Your task to perform on an android device: Search for "logitech g pro" on target.com, select the first entry, and add it to the cart. Image 0: 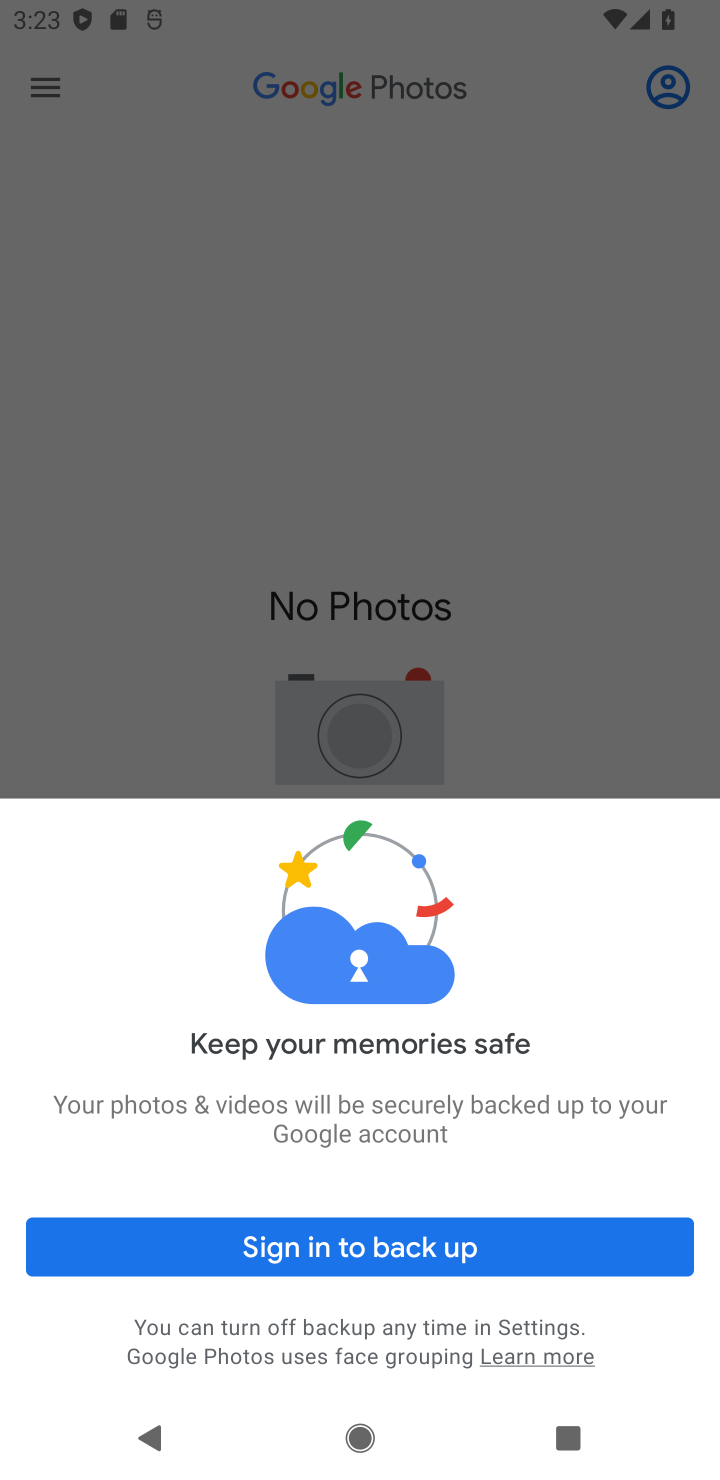
Step 0: press home button
Your task to perform on an android device: Search for "logitech g pro" on target.com, select the first entry, and add it to the cart. Image 1: 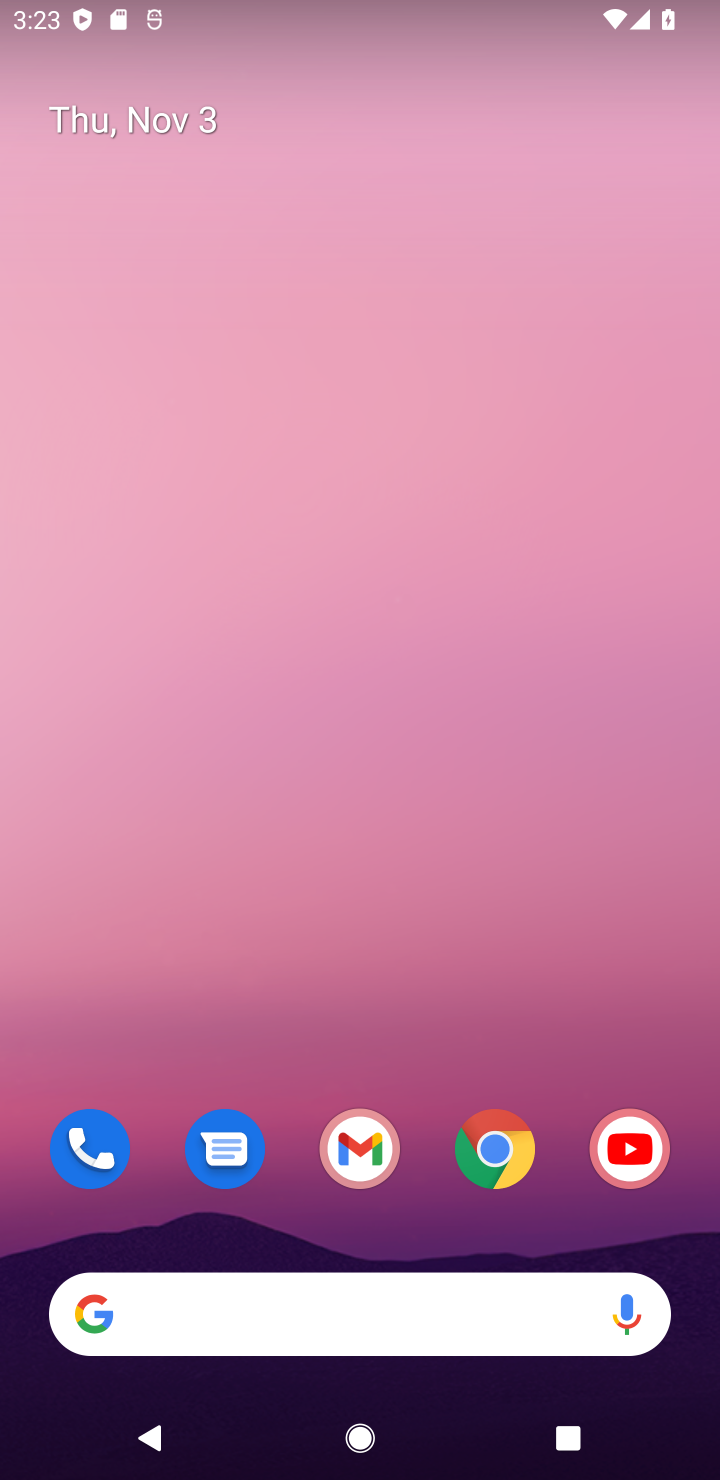
Step 1: click (493, 1156)
Your task to perform on an android device: Search for "logitech g pro" on target.com, select the first entry, and add it to the cart. Image 2: 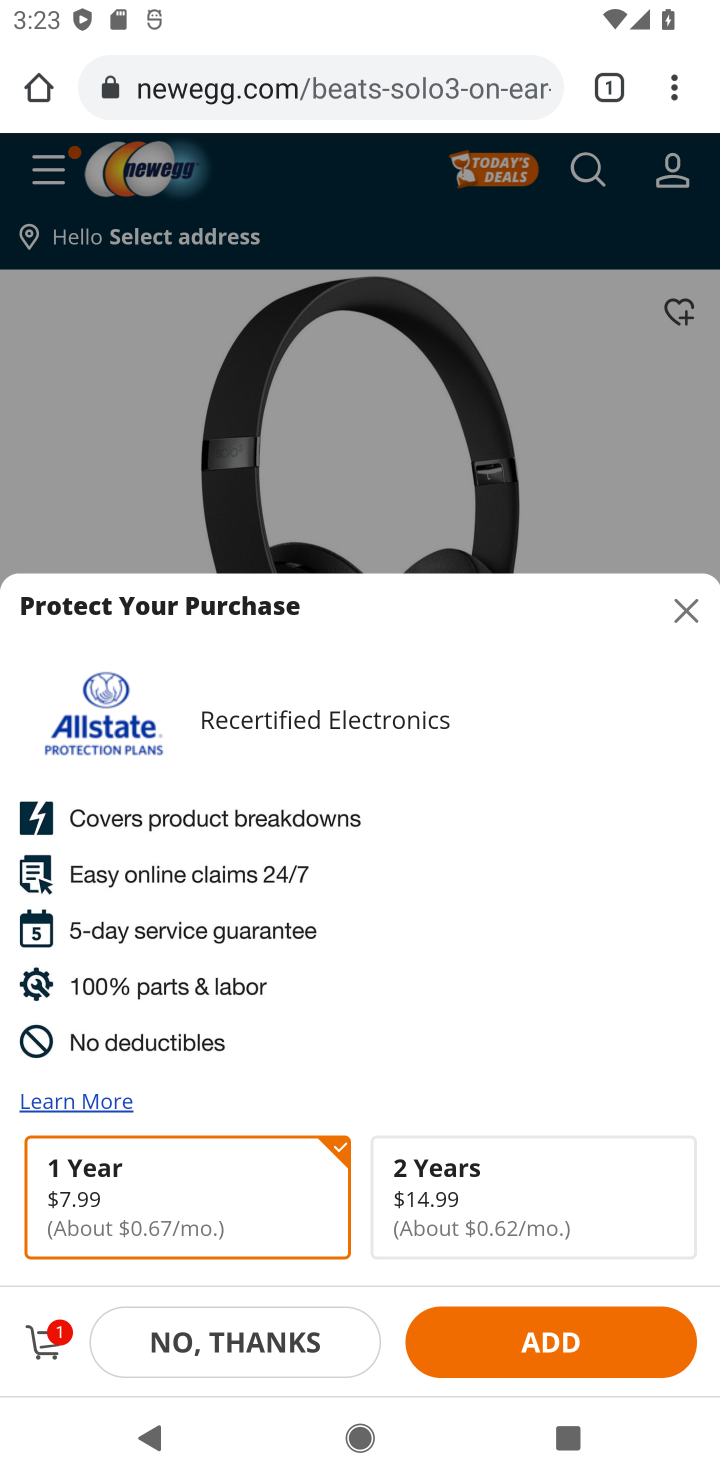
Step 2: click (687, 603)
Your task to perform on an android device: Search for "logitech g pro" on target.com, select the first entry, and add it to the cart. Image 3: 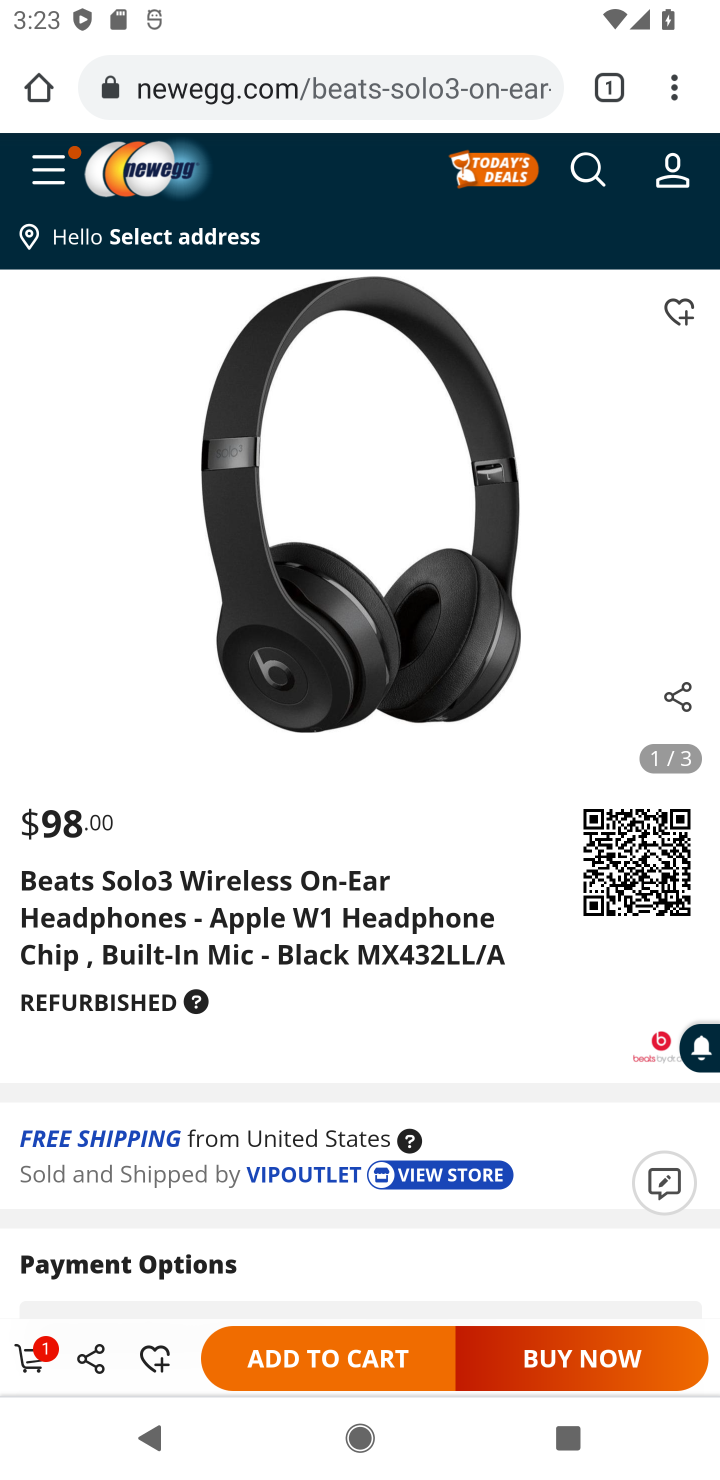
Step 3: click (613, 89)
Your task to perform on an android device: Search for "logitech g pro" on target.com, select the first entry, and add it to the cart. Image 4: 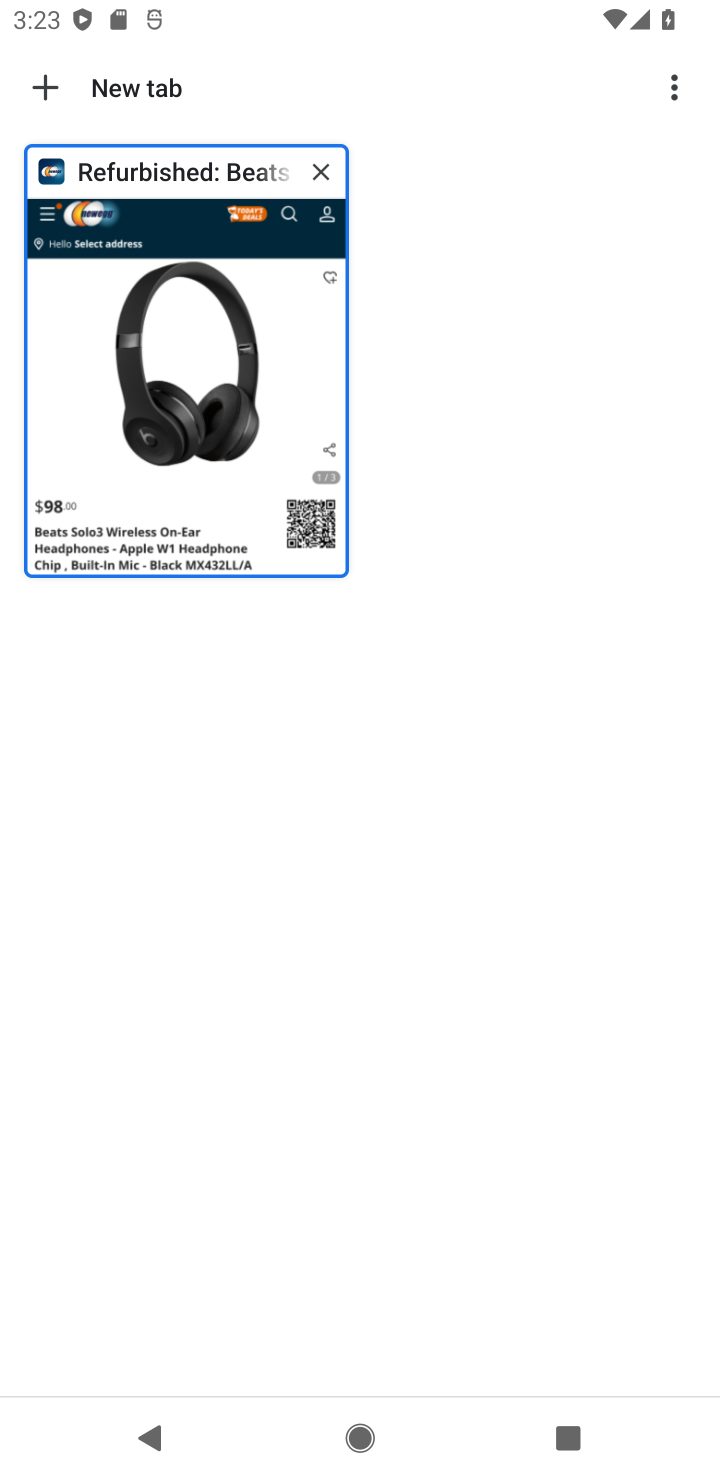
Step 4: click (44, 98)
Your task to perform on an android device: Search for "logitech g pro" on target.com, select the first entry, and add it to the cart. Image 5: 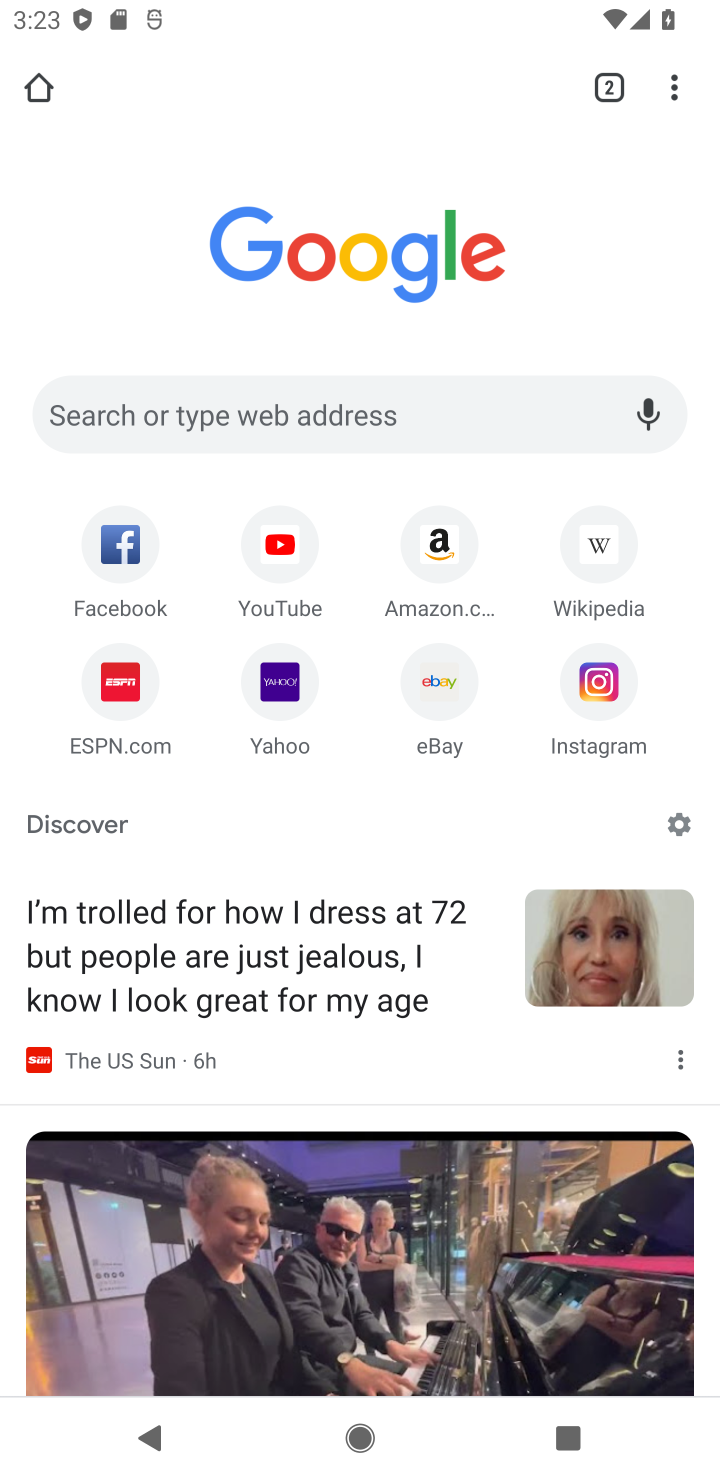
Step 5: click (184, 409)
Your task to perform on an android device: Search for "logitech g pro" on target.com, select the first entry, and add it to the cart. Image 6: 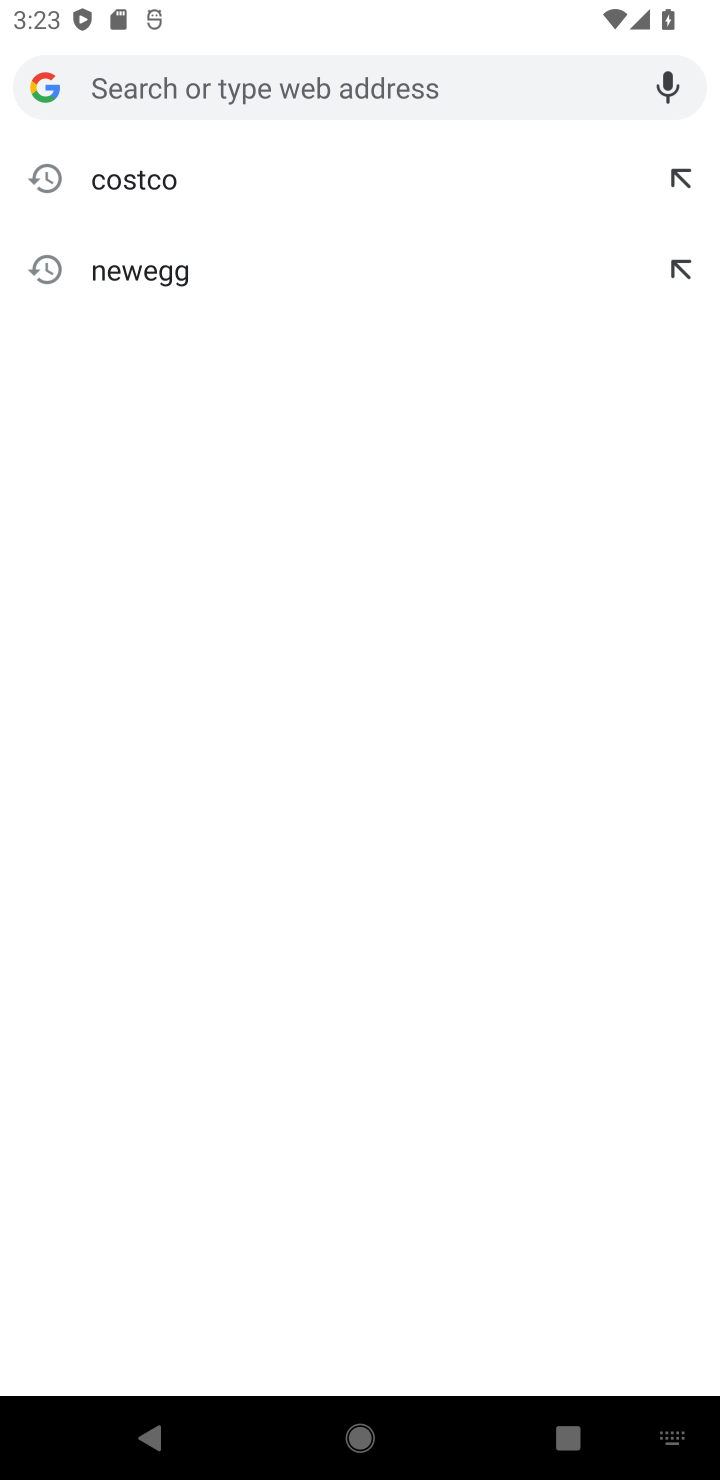
Step 6: type "target"
Your task to perform on an android device: Search for "logitech g pro" on target.com, select the first entry, and add it to the cart. Image 7: 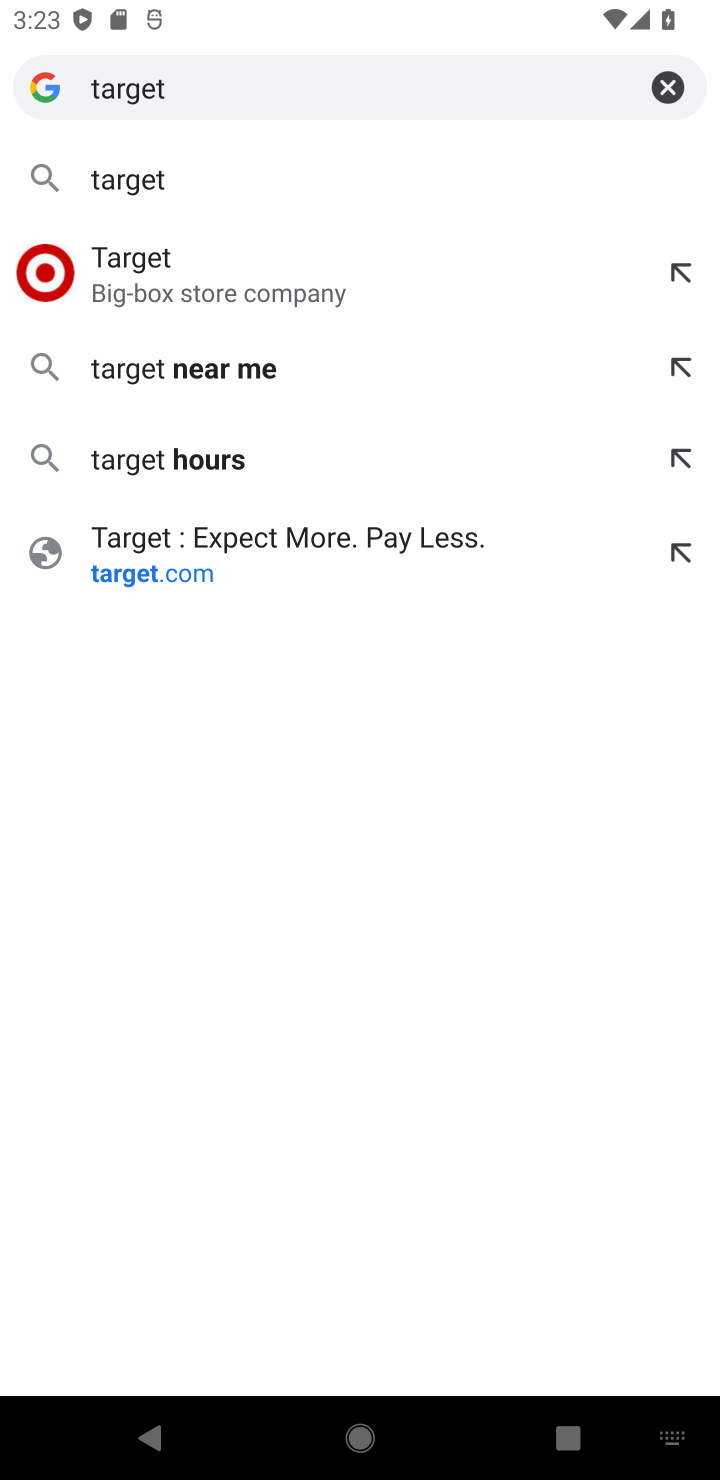
Step 7: click (194, 267)
Your task to perform on an android device: Search for "logitech g pro" on target.com, select the first entry, and add it to the cart. Image 8: 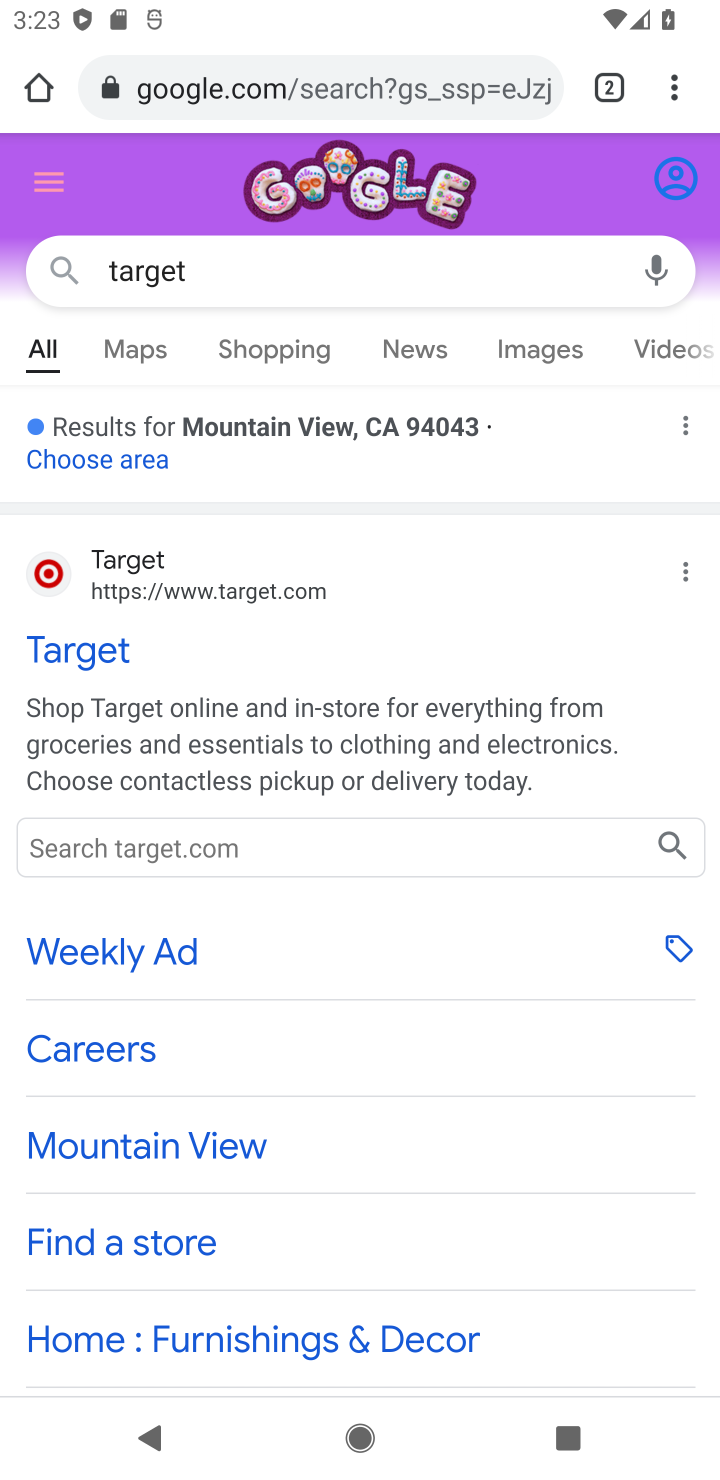
Step 8: click (55, 847)
Your task to perform on an android device: Search for "logitech g pro" on target.com, select the first entry, and add it to the cart. Image 9: 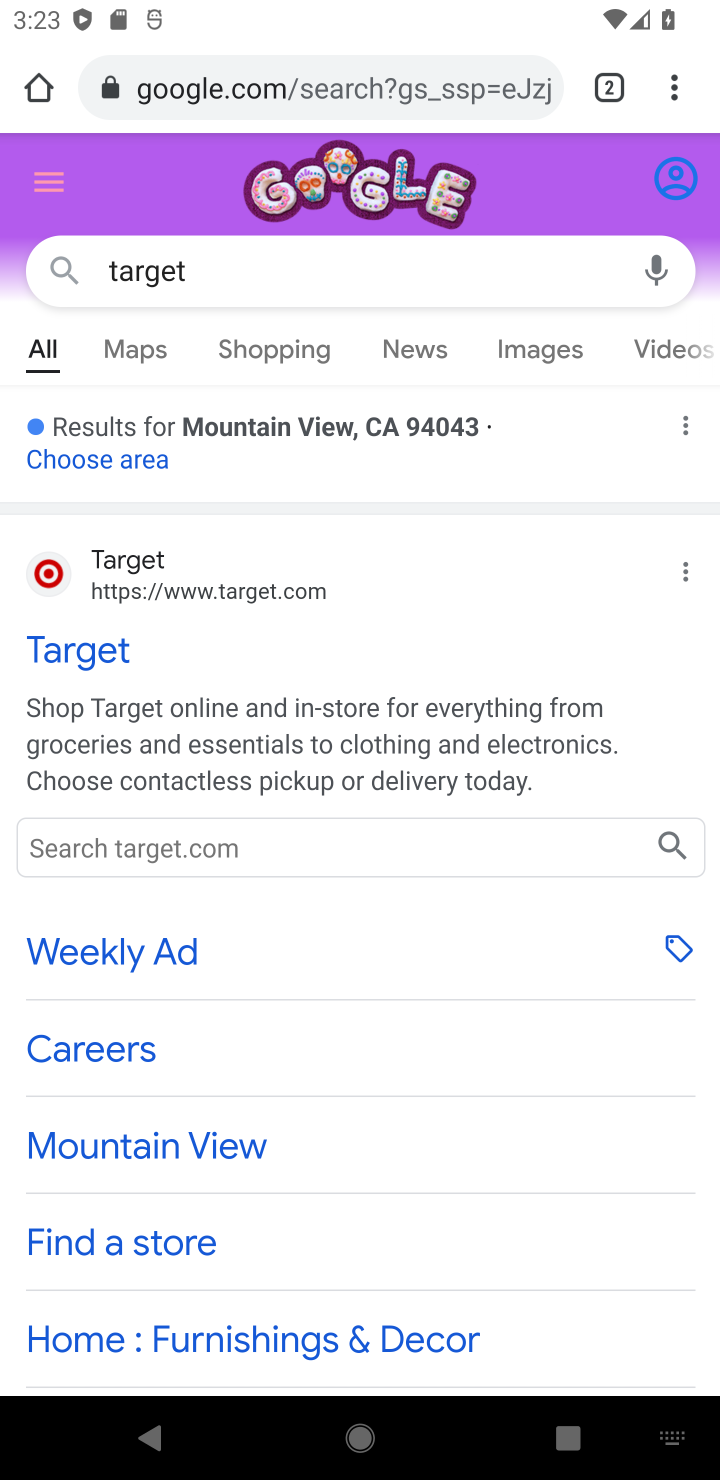
Step 9: type "logitech g pro"
Your task to perform on an android device: Search for "logitech g pro" on target.com, select the first entry, and add it to the cart. Image 10: 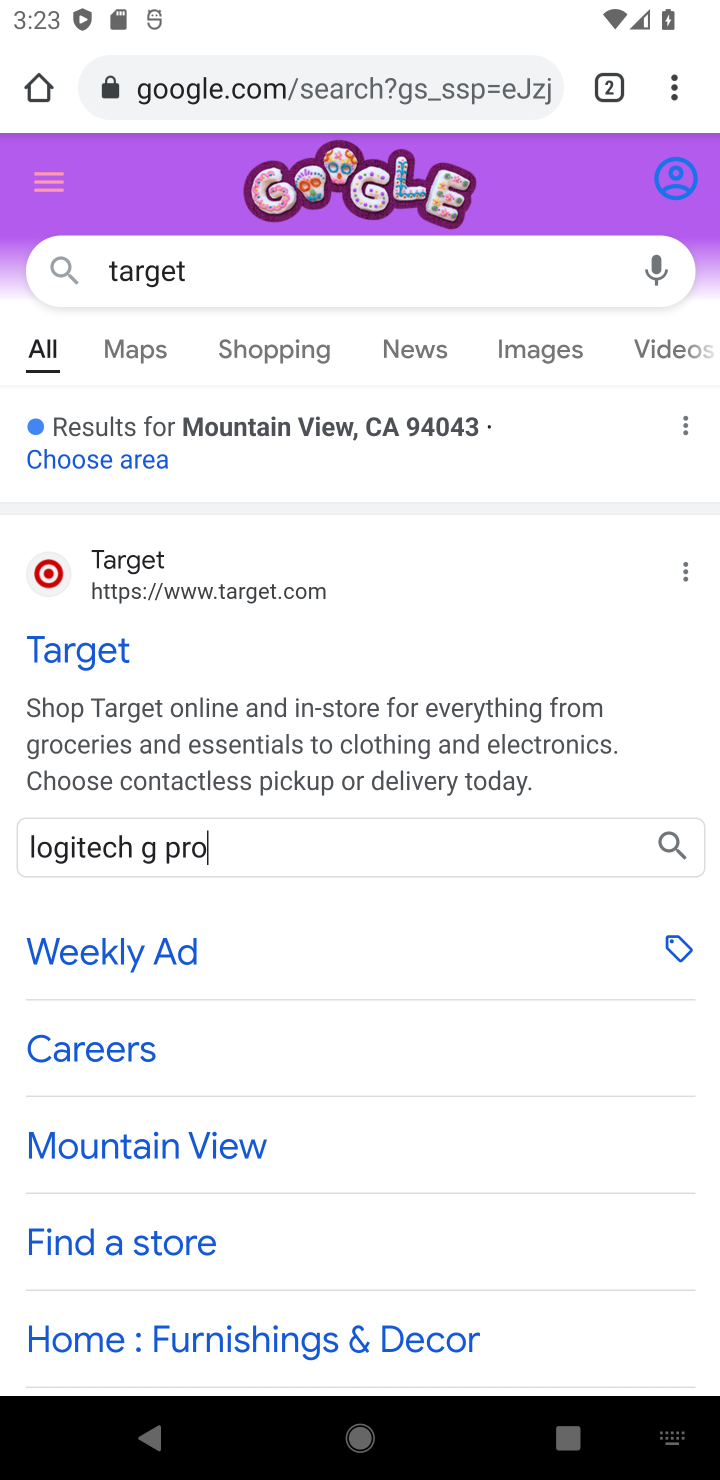
Step 10: click (667, 839)
Your task to perform on an android device: Search for "logitech g pro" on target.com, select the first entry, and add it to the cart. Image 11: 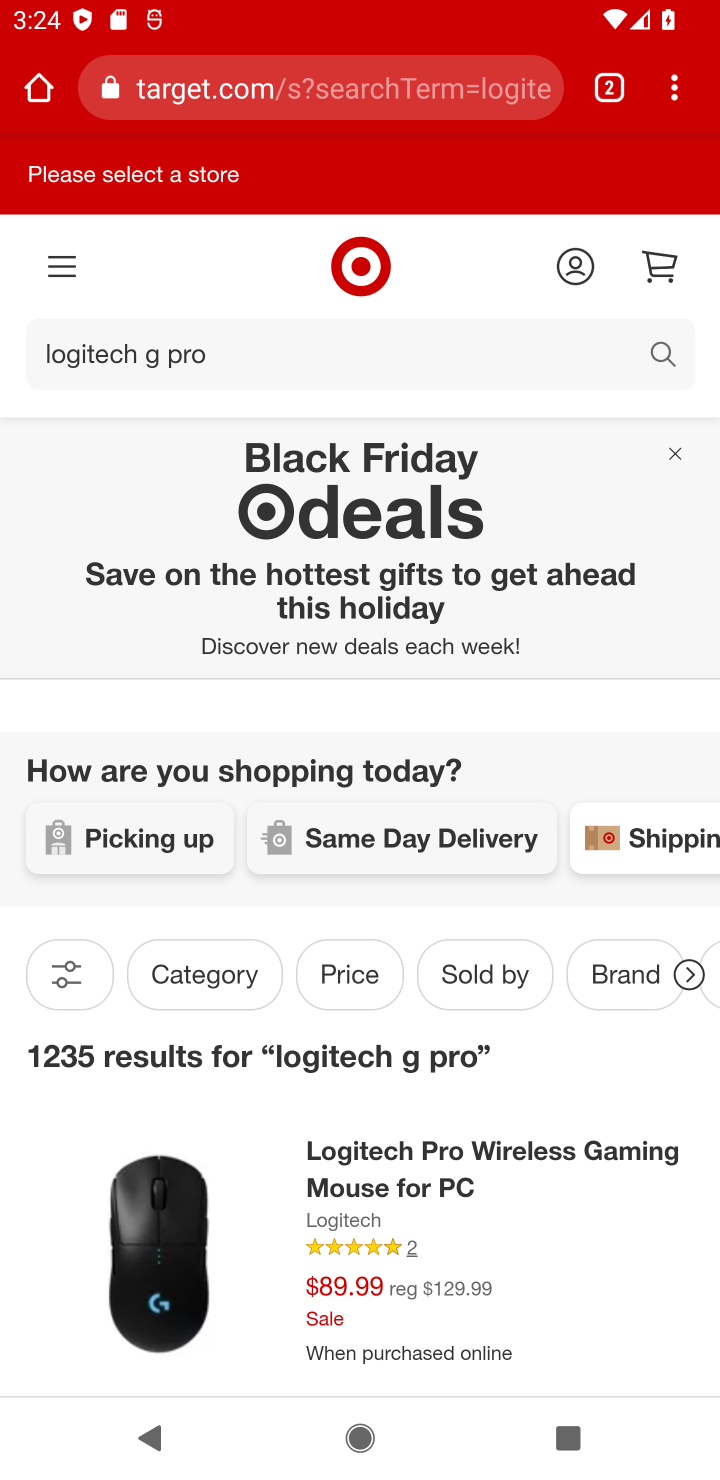
Step 11: drag from (570, 1232) to (542, 534)
Your task to perform on an android device: Search for "logitech g pro" on target.com, select the first entry, and add it to the cart. Image 12: 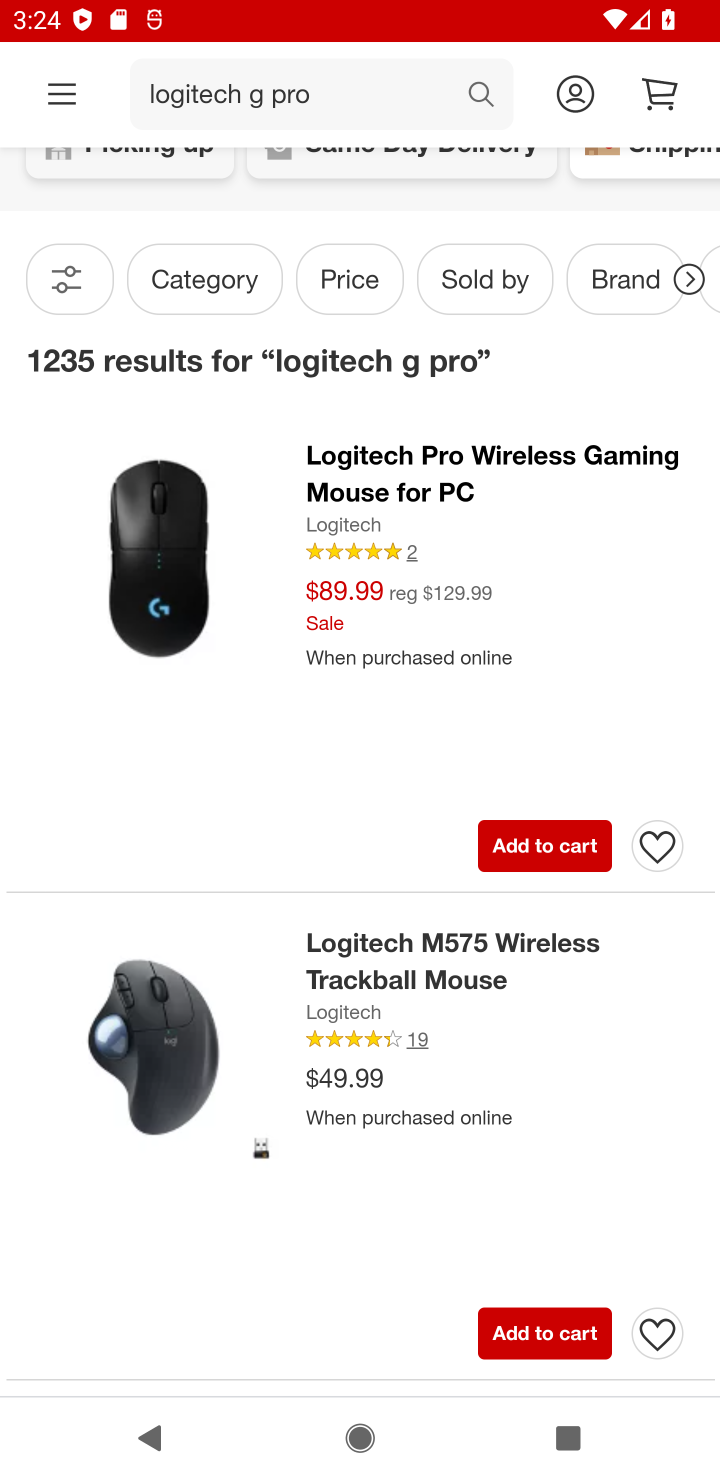
Step 12: click (555, 852)
Your task to perform on an android device: Search for "logitech g pro" on target.com, select the first entry, and add it to the cart. Image 13: 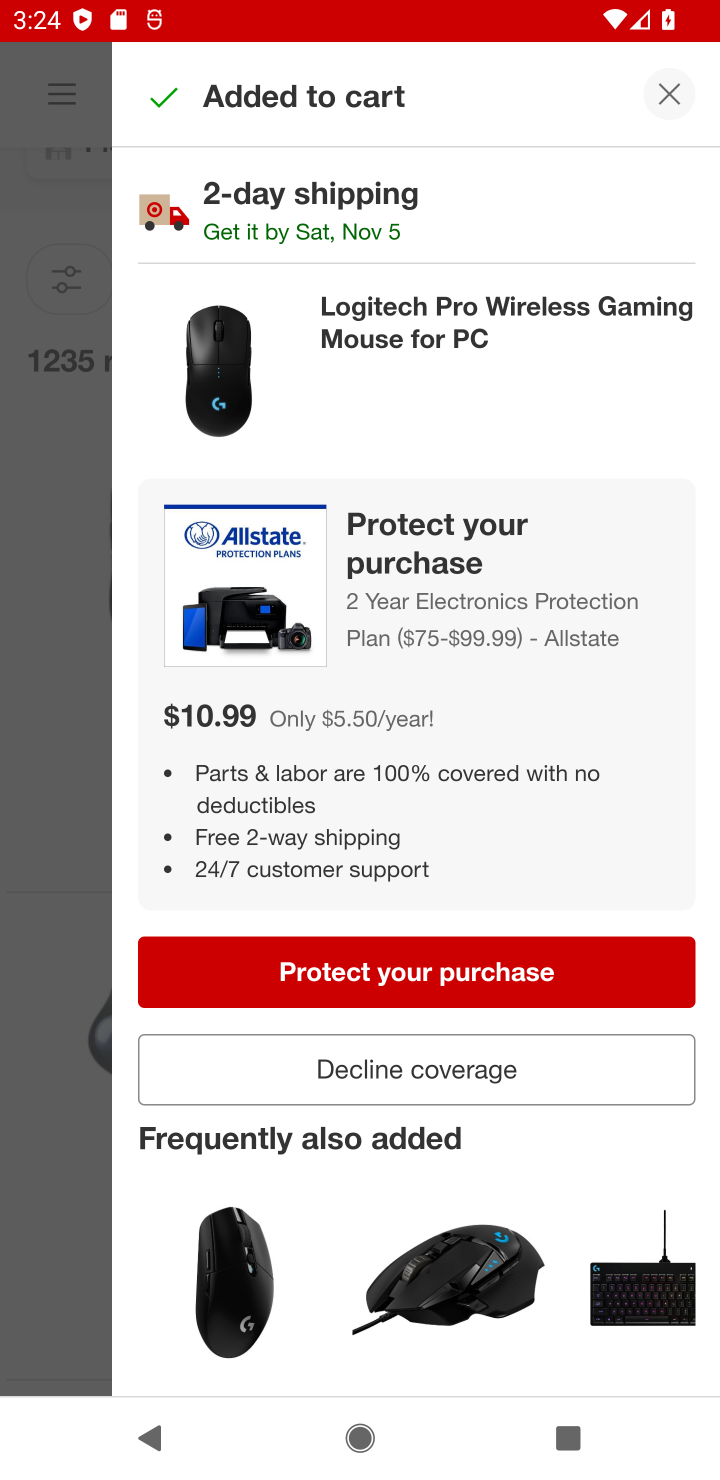
Step 13: click (473, 1063)
Your task to perform on an android device: Search for "logitech g pro" on target.com, select the first entry, and add it to the cart. Image 14: 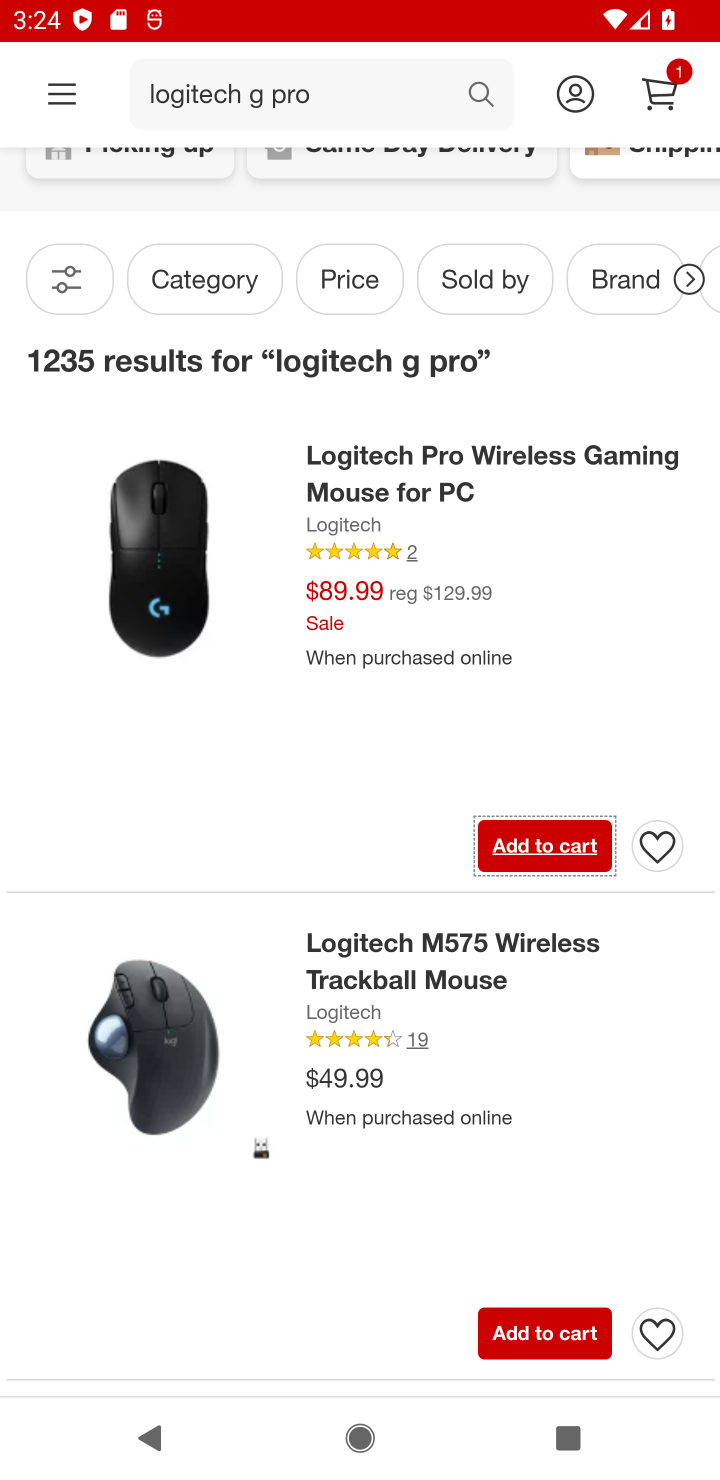
Step 14: task complete